Your task to perform on an android device: Go to Google maps Image 0: 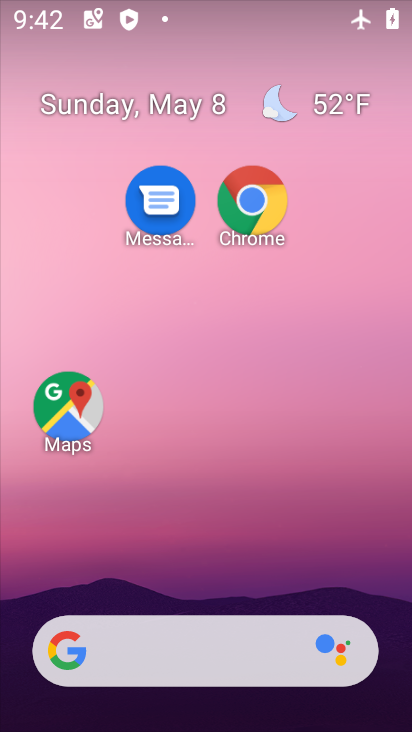
Step 0: drag from (228, 596) to (194, 28)
Your task to perform on an android device: Go to Google maps Image 1: 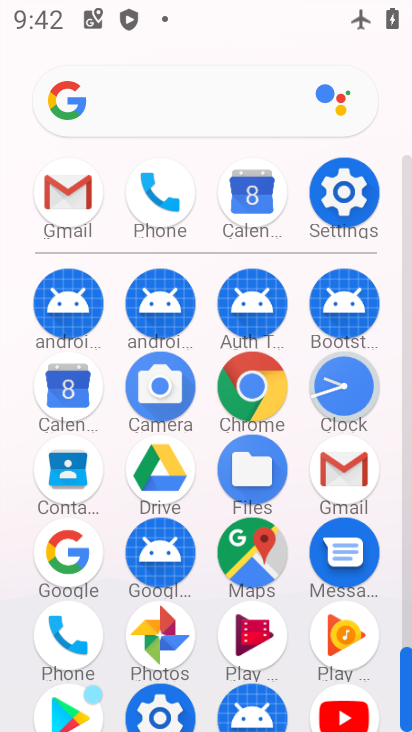
Step 1: click (270, 560)
Your task to perform on an android device: Go to Google maps Image 2: 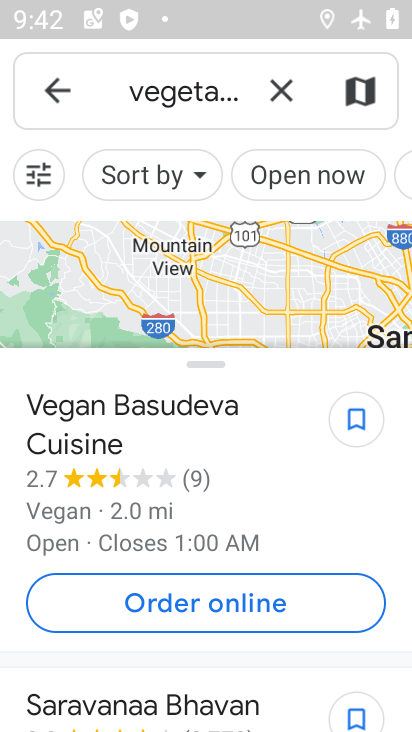
Step 2: task complete